Your task to perform on an android device: add a contact in the contacts app Image 0: 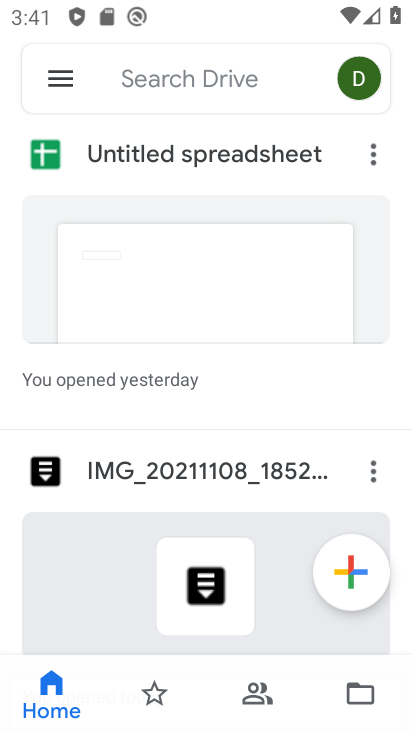
Step 0: press home button
Your task to perform on an android device: add a contact in the contacts app Image 1: 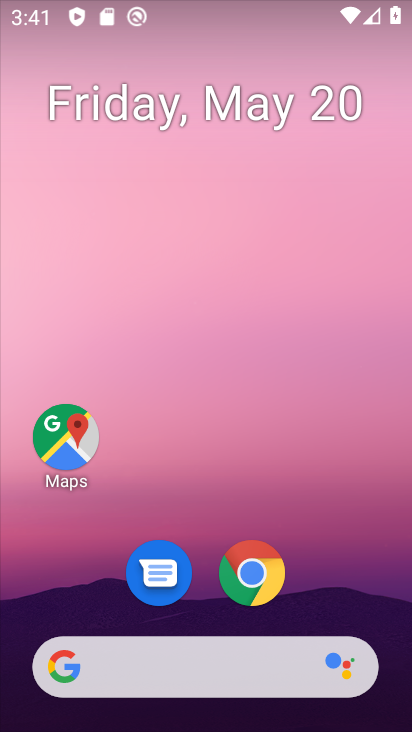
Step 1: drag from (366, 570) to (369, 99)
Your task to perform on an android device: add a contact in the contacts app Image 2: 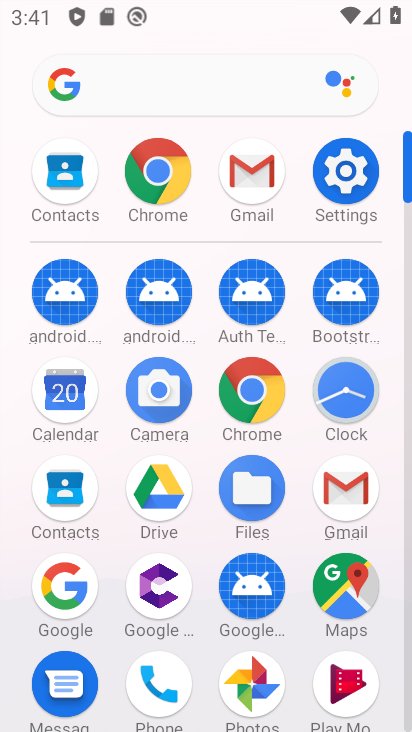
Step 2: click (52, 181)
Your task to perform on an android device: add a contact in the contacts app Image 3: 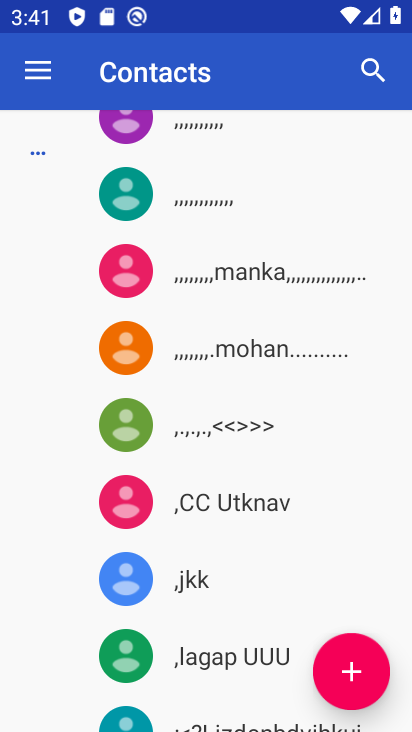
Step 3: click (367, 686)
Your task to perform on an android device: add a contact in the contacts app Image 4: 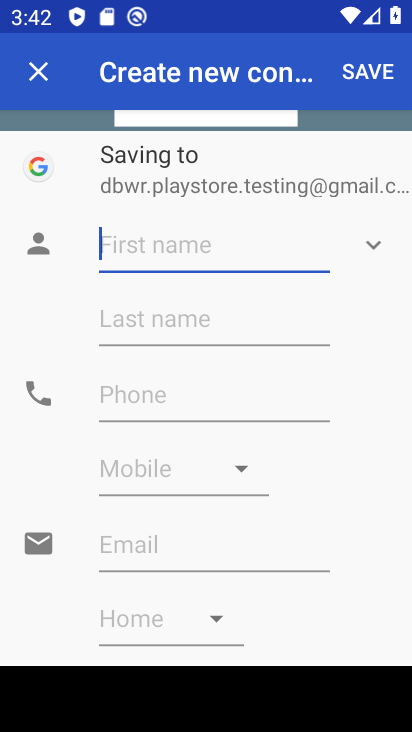
Step 4: type "oidhhd"
Your task to perform on an android device: add a contact in the contacts app Image 5: 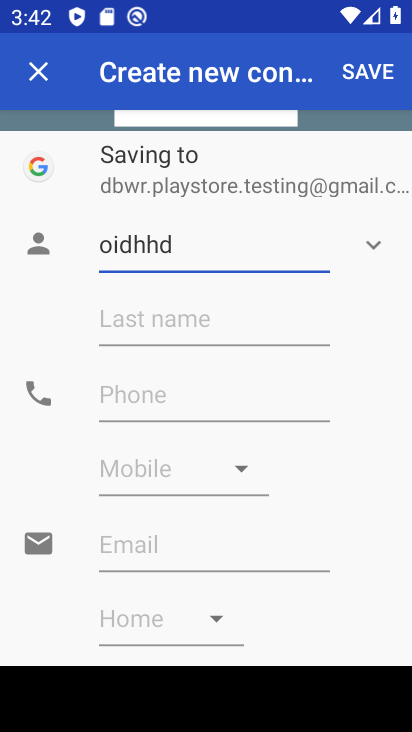
Step 5: click (285, 407)
Your task to perform on an android device: add a contact in the contacts app Image 6: 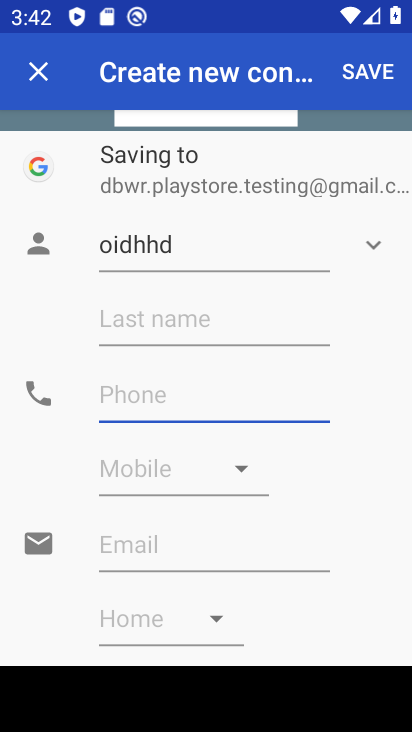
Step 6: type "20938029303"
Your task to perform on an android device: add a contact in the contacts app Image 7: 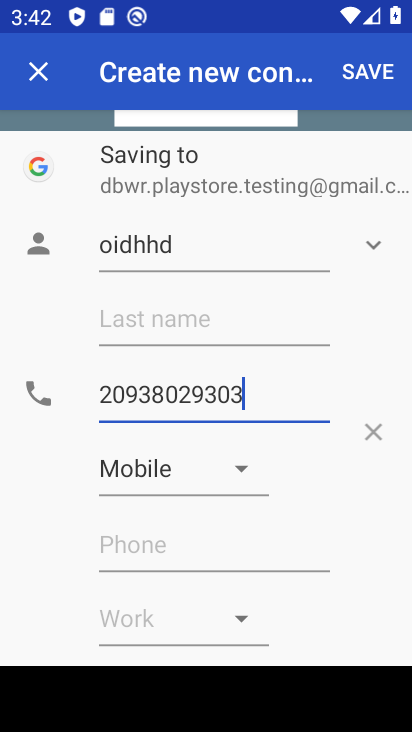
Step 7: click (372, 72)
Your task to perform on an android device: add a contact in the contacts app Image 8: 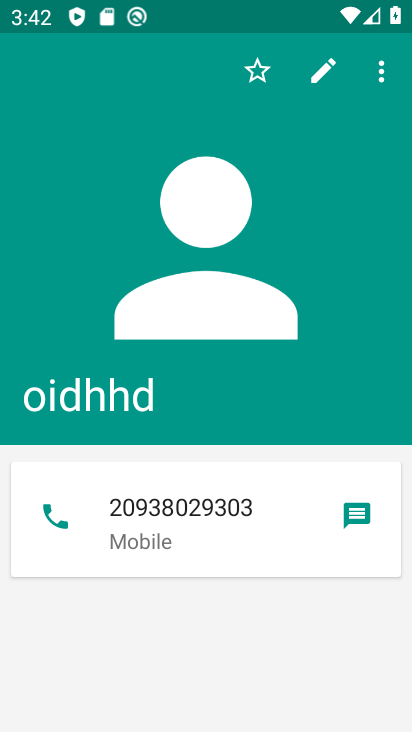
Step 8: task complete